Your task to perform on an android device: Go to battery settings Image 0: 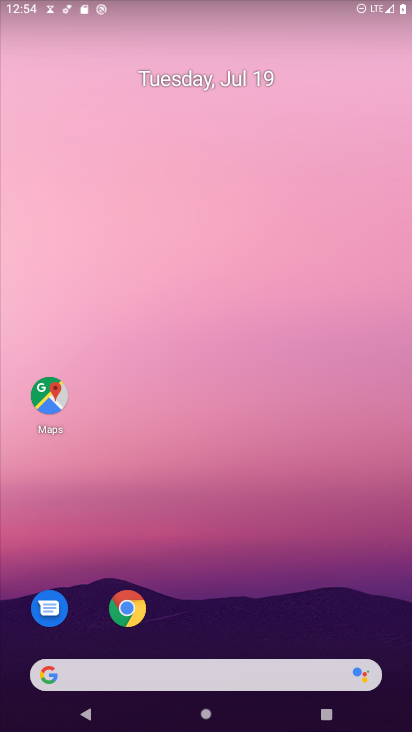
Step 0: drag from (282, 660) to (217, 116)
Your task to perform on an android device: Go to battery settings Image 1: 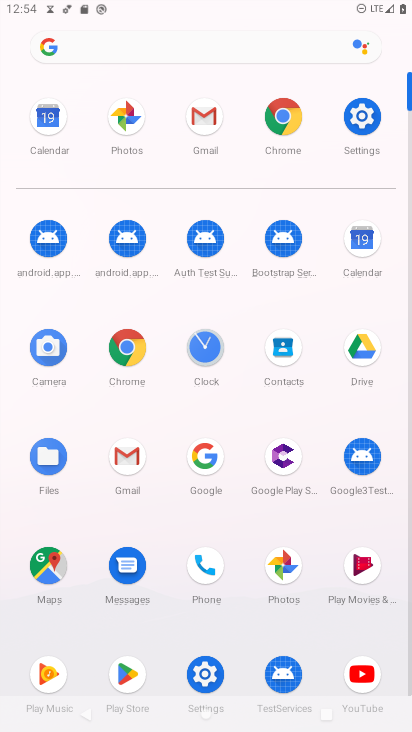
Step 1: click (362, 104)
Your task to perform on an android device: Go to battery settings Image 2: 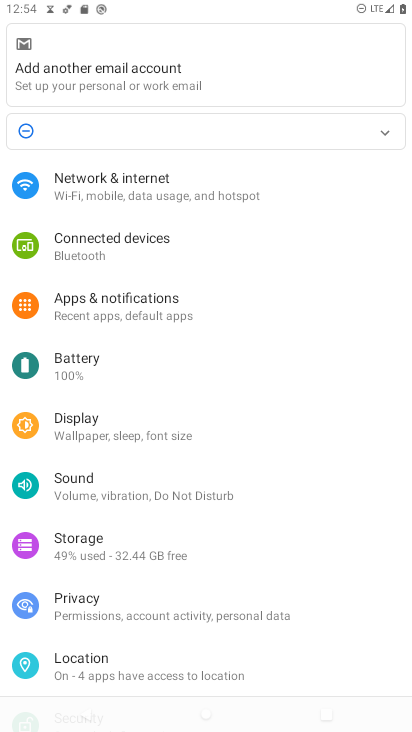
Step 2: click (81, 366)
Your task to perform on an android device: Go to battery settings Image 3: 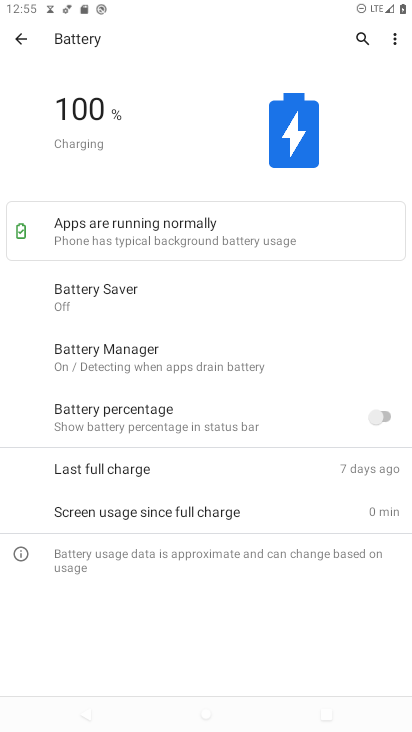
Step 3: task complete